Your task to perform on an android device: Add "macbook pro" to the cart on costco, then select checkout. Image 0: 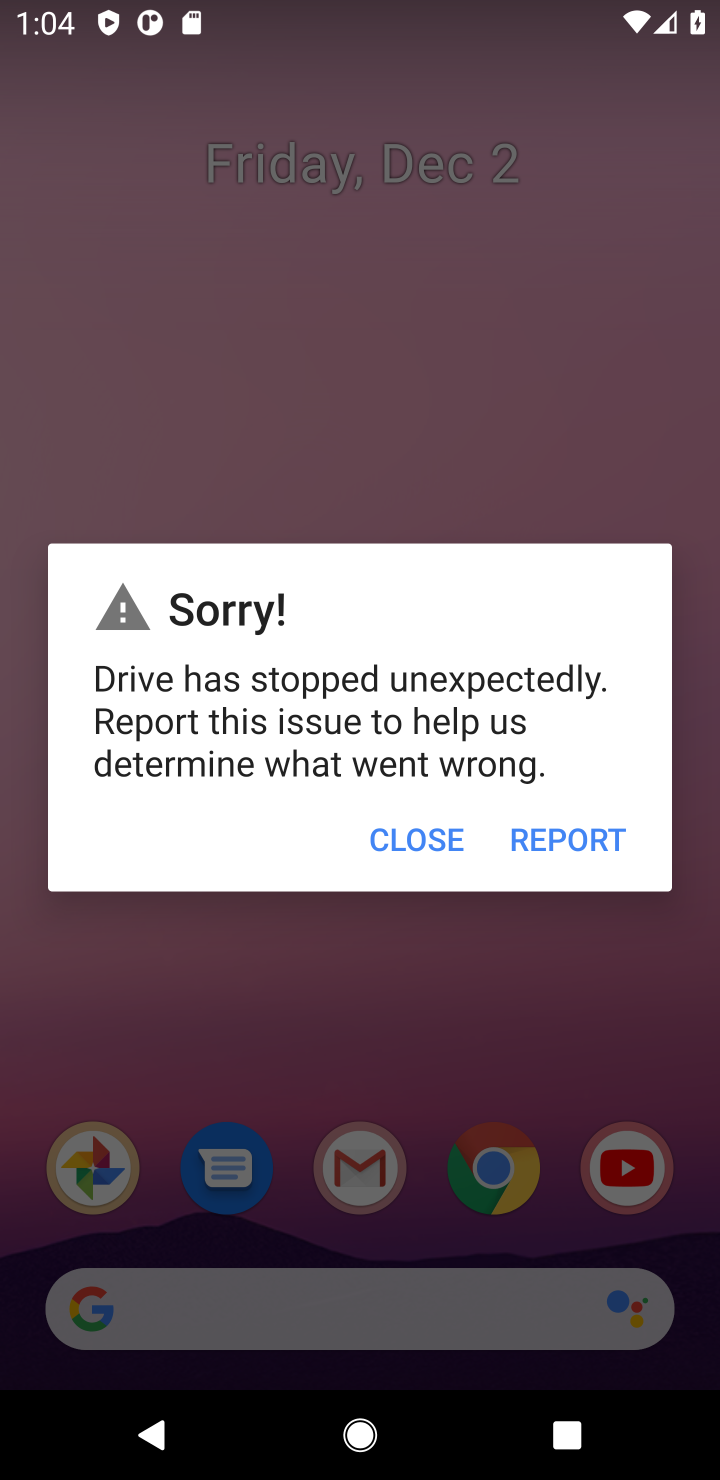
Step 0: click (433, 839)
Your task to perform on an android device: Add "macbook pro" to the cart on costco, then select checkout. Image 1: 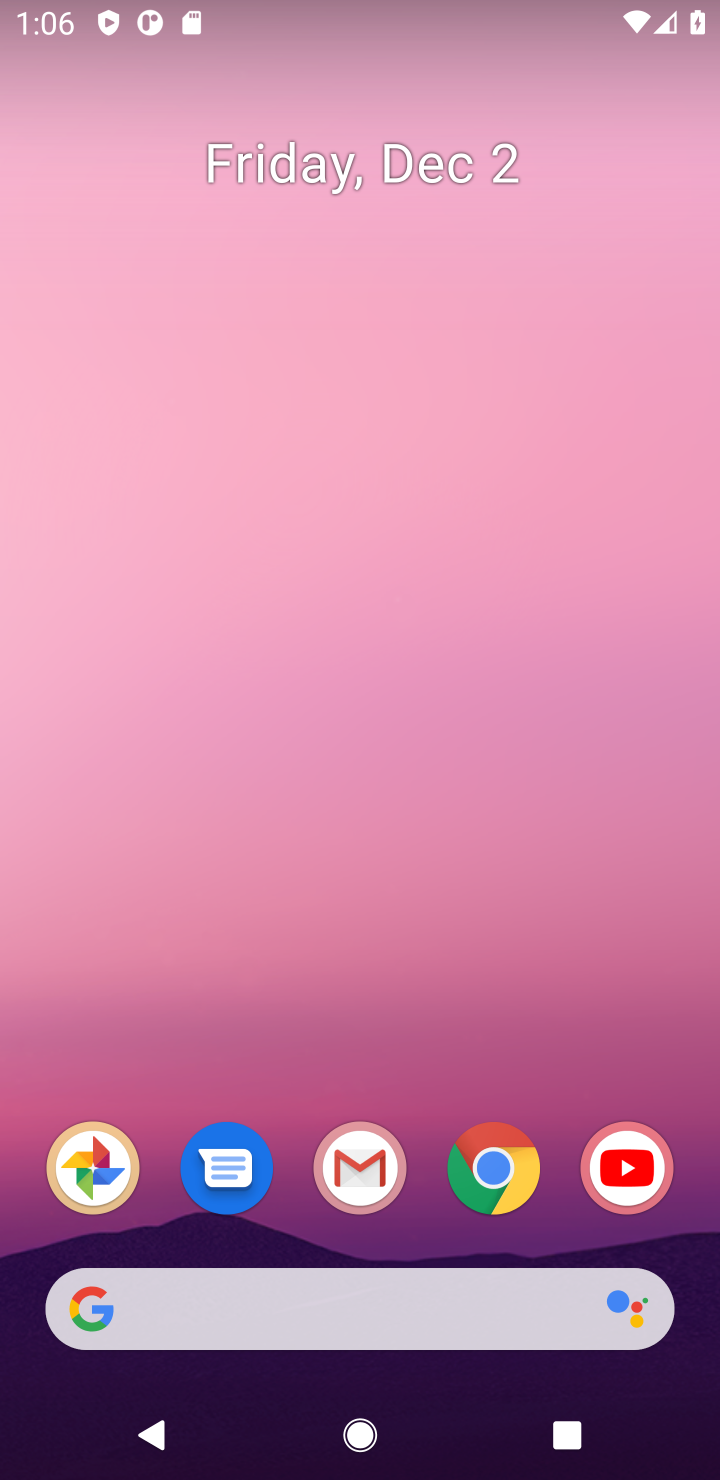
Step 1: click (499, 1188)
Your task to perform on an android device: Add "macbook pro" to the cart on costco, then select checkout. Image 2: 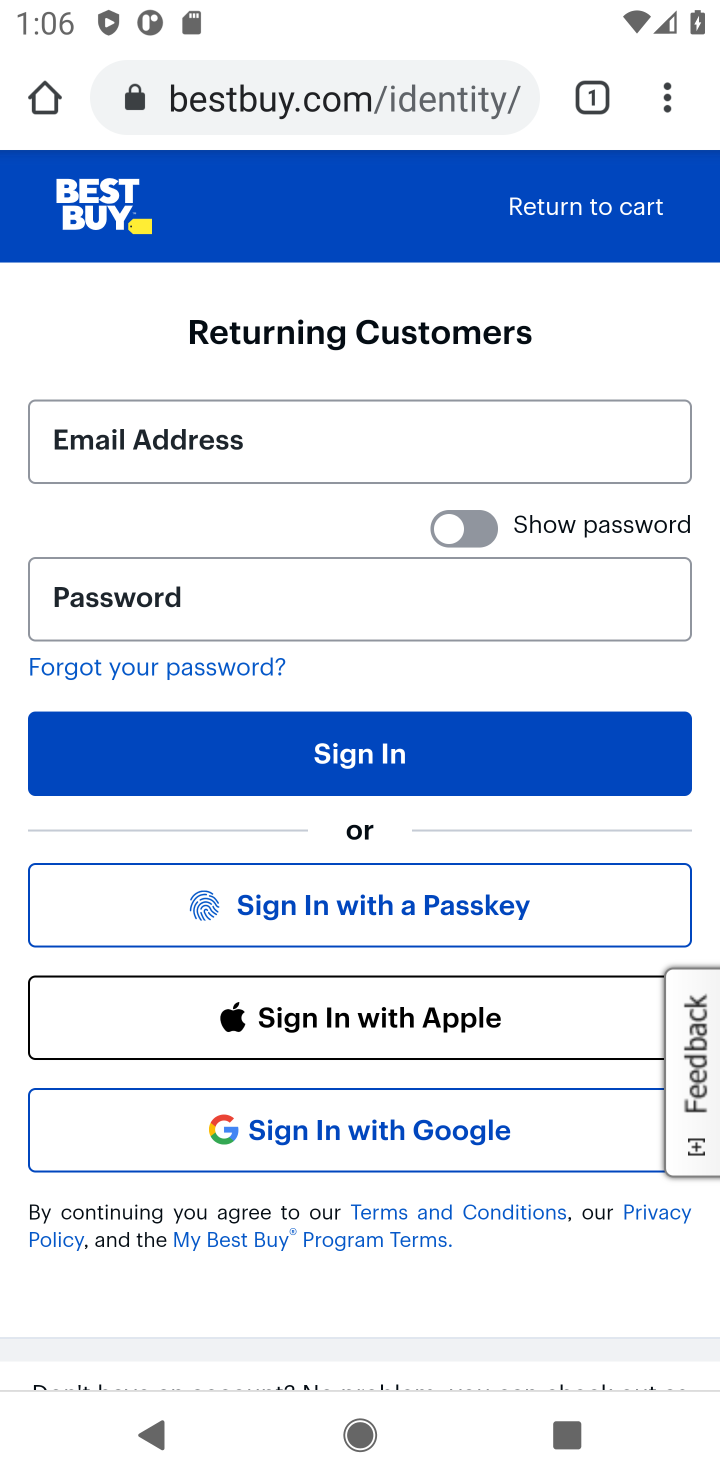
Step 2: click (321, 93)
Your task to perform on an android device: Add "macbook pro" to the cart on costco, then select checkout. Image 3: 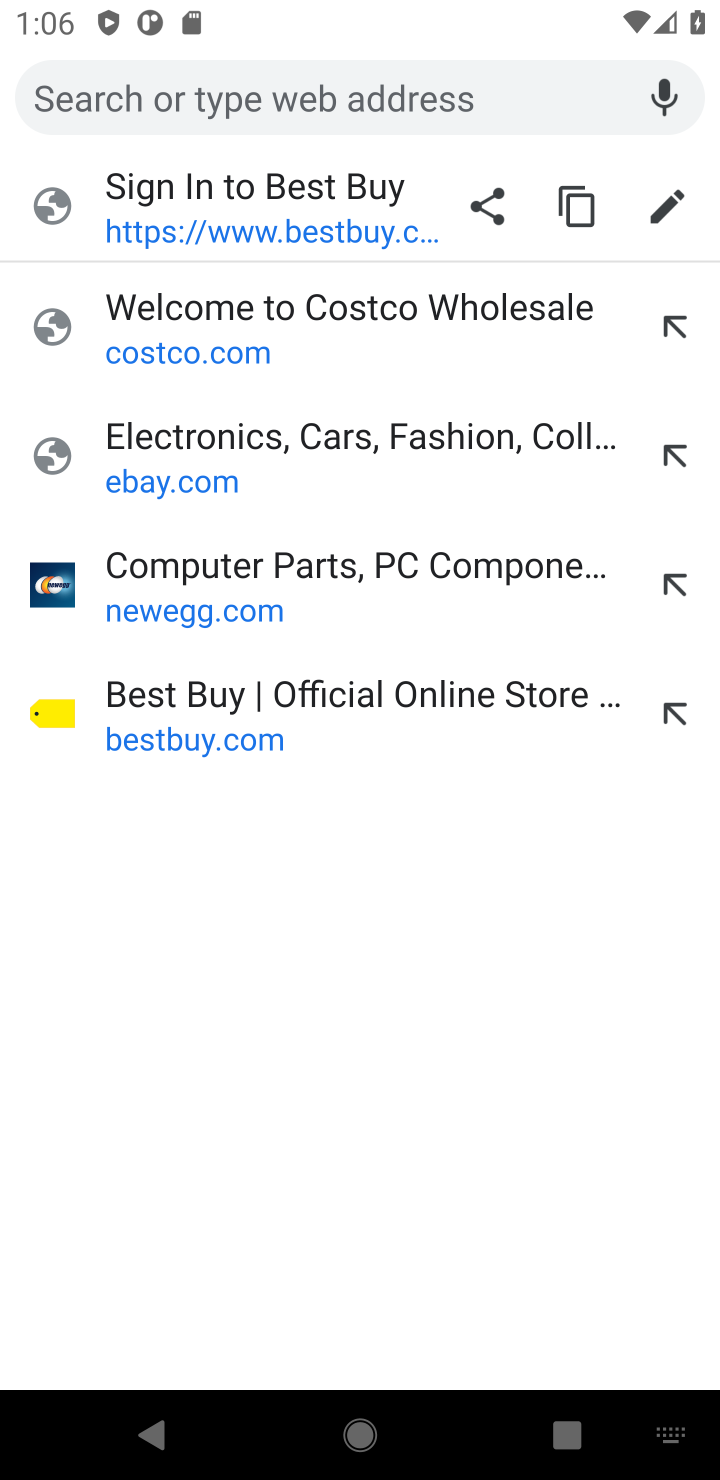
Step 3: click (196, 337)
Your task to perform on an android device: Add "macbook pro" to the cart on costco, then select checkout. Image 4: 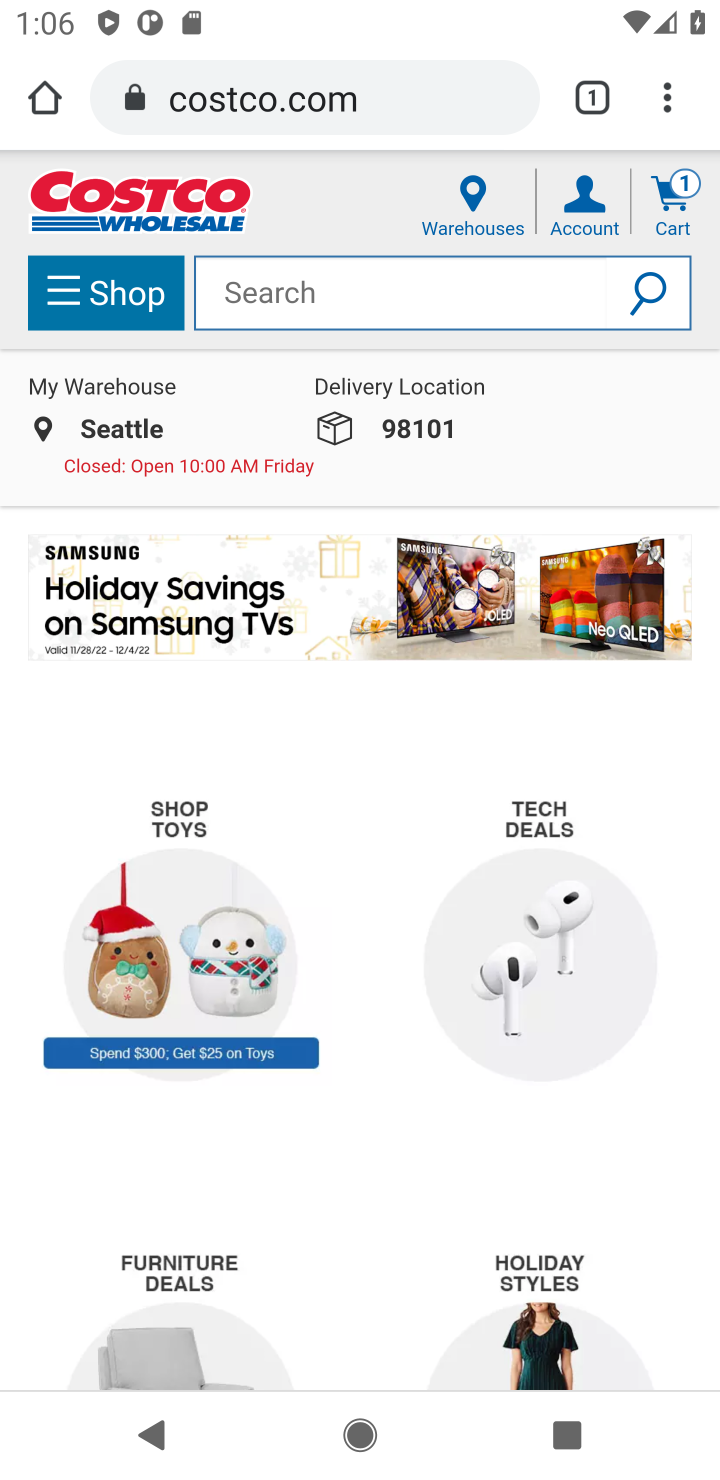
Step 4: click (301, 283)
Your task to perform on an android device: Add "macbook pro" to the cart on costco, then select checkout. Image 5: 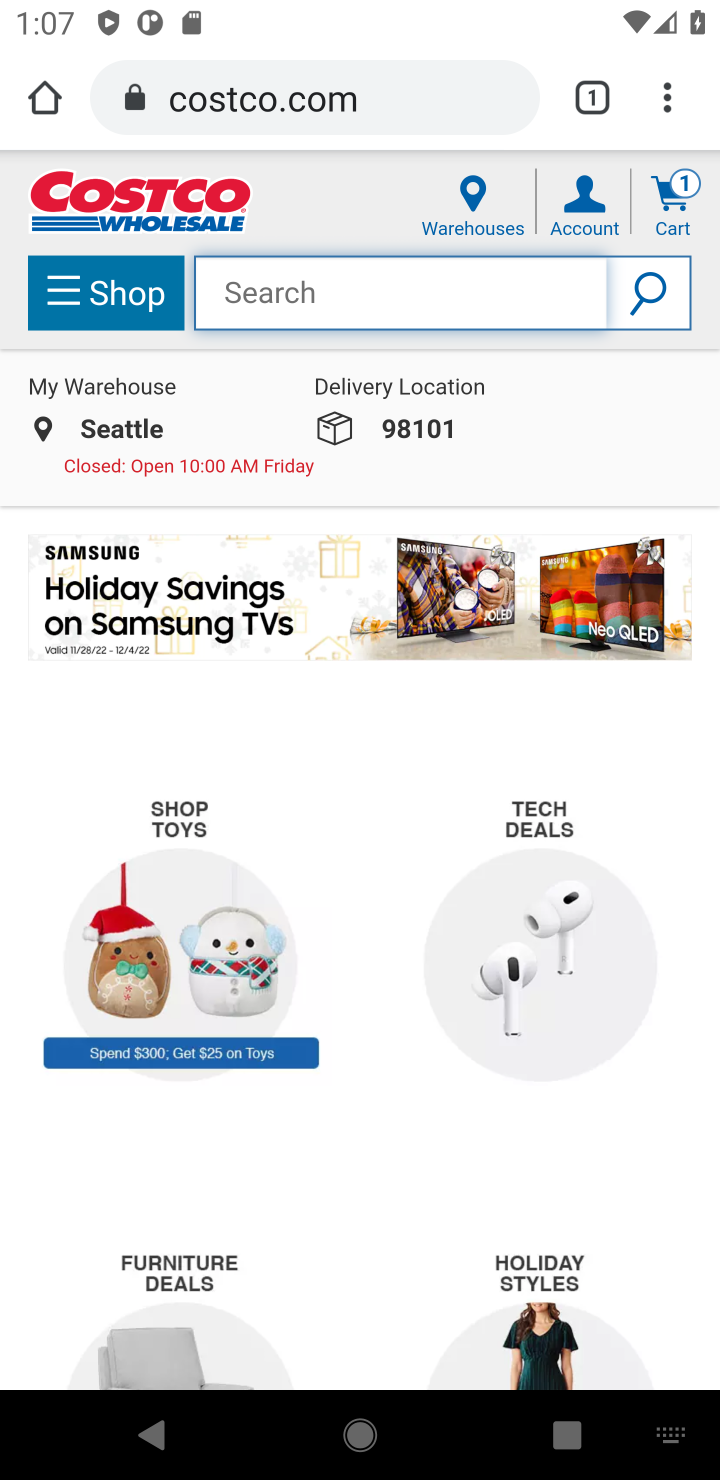
Step 5: type "macbook pro"
Your task to perform on an android device: Add "macbook pro" to the cart on costco, then select checkout. Image 6: 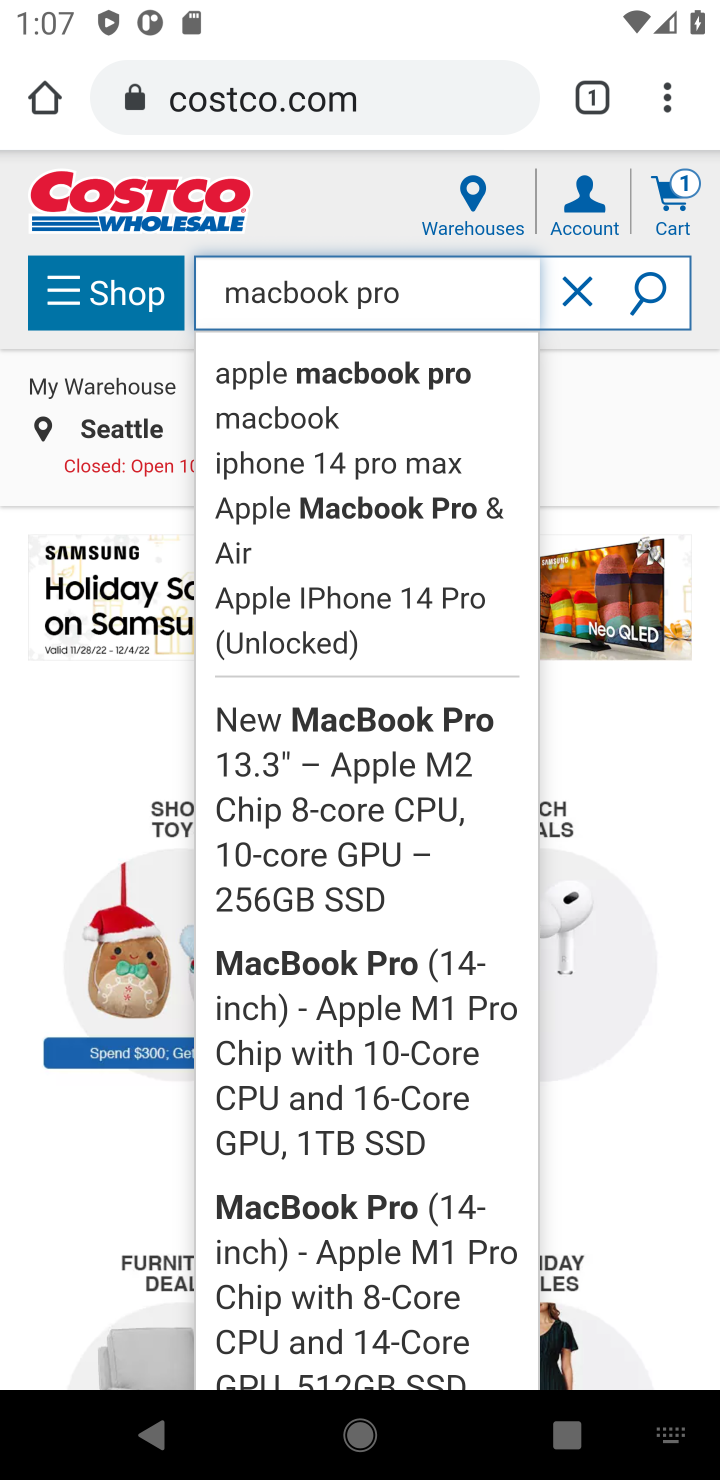
Step 6: click (263, 377)
Your task to perform on an android device: Add "macbook pro" to the cart on costco, then select checkout. Image 7: 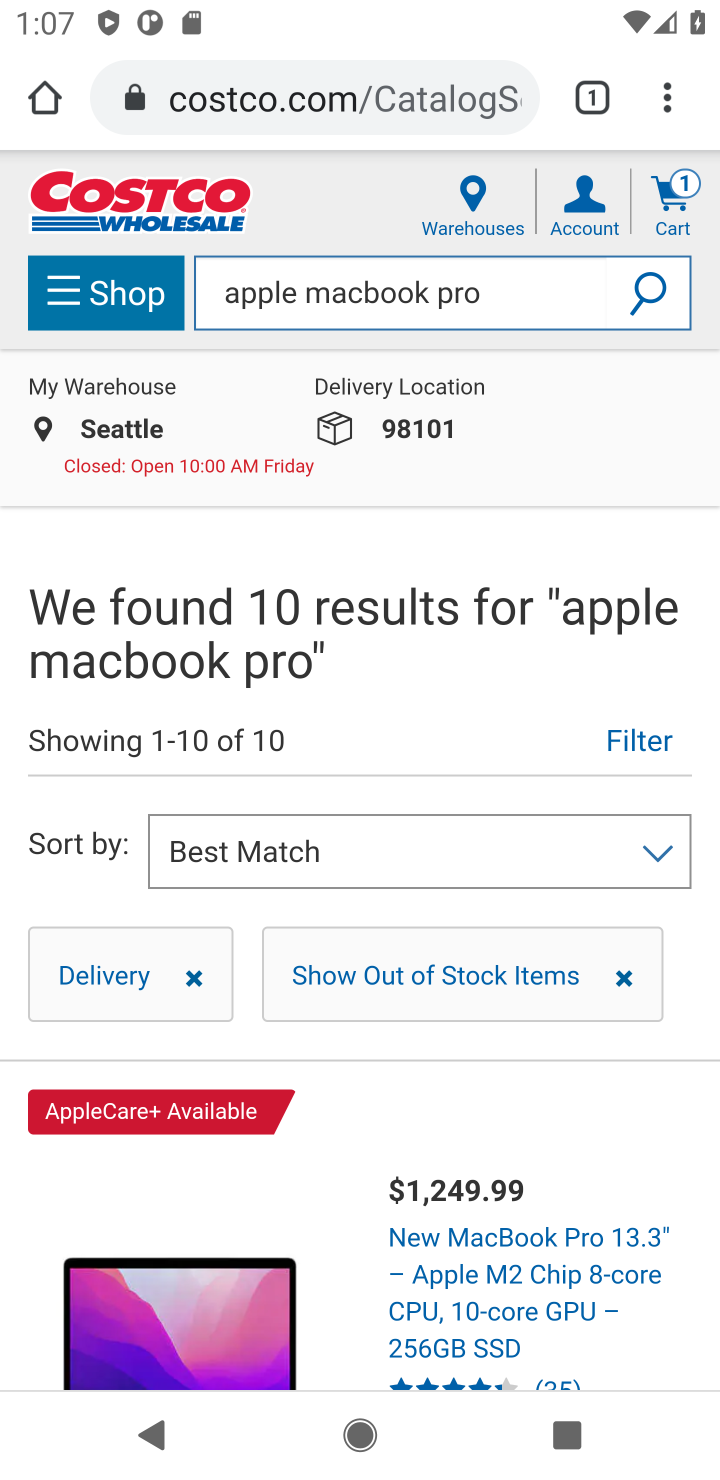
Step 7: click (269, 1318)
Your task to perform on an android device: Add "macbook pro" to the cart on costco, then select checkout. Image 8: 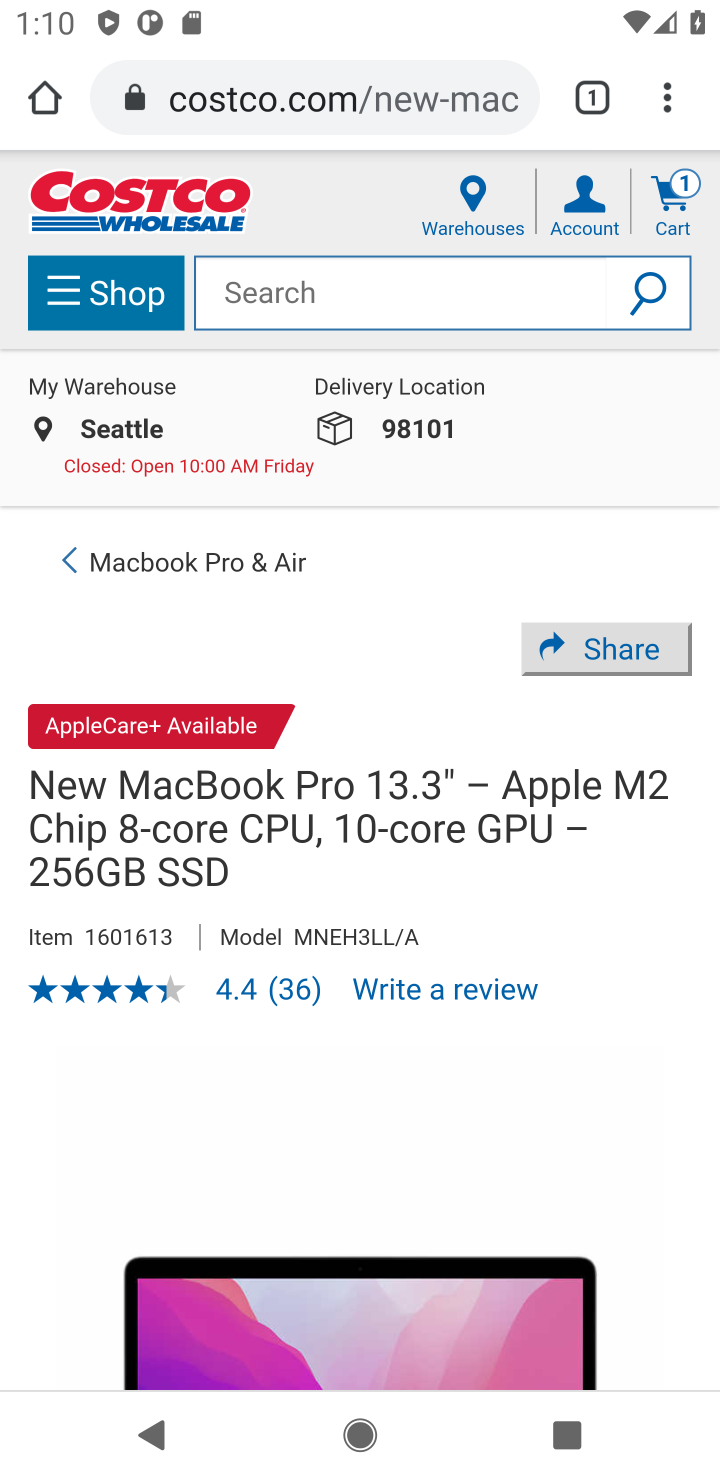
Step 8: drag from (378, 1293) to (323, 288)
Your task to perform on an android device: Add "macbook pro" to the cart on costco, then select checkout. Image 9: 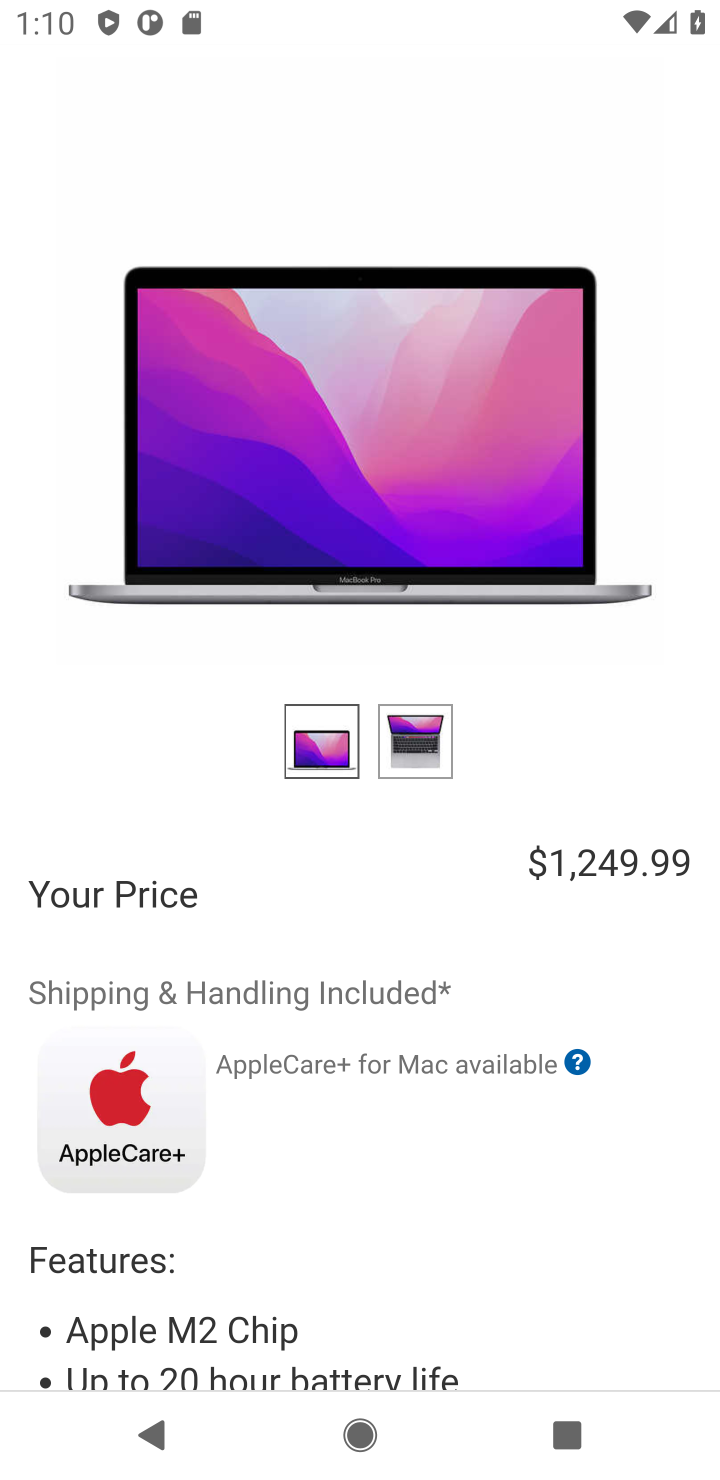
Step 9: drag from (508, 1282) to (398, 184)
Your task to perform on an android device: Add "macbook pro" to the cart on costco, then select checkout. Image 10: 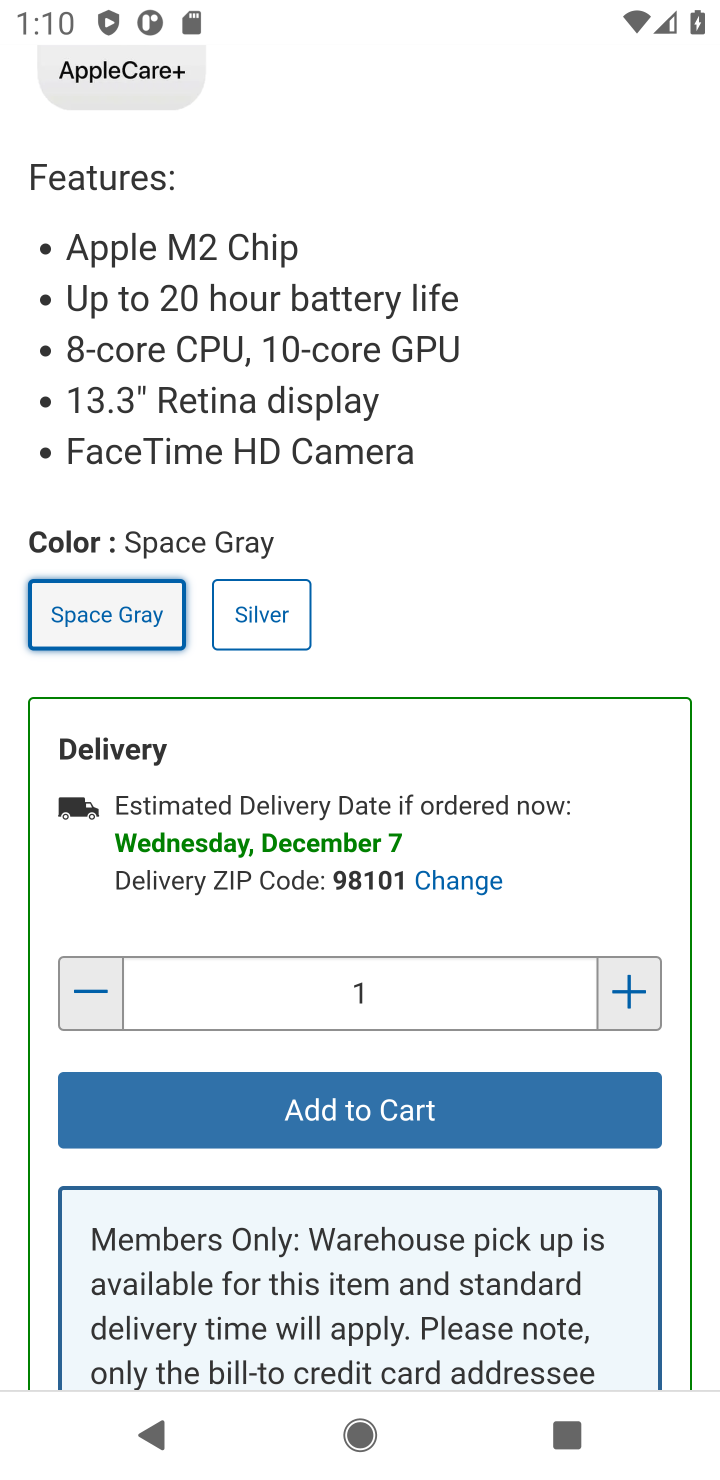
Step 10: click (350, 1120)
Your task to perform on an android device: Add "macbook pro" to the cart on costco, then select checkout. Image 11: 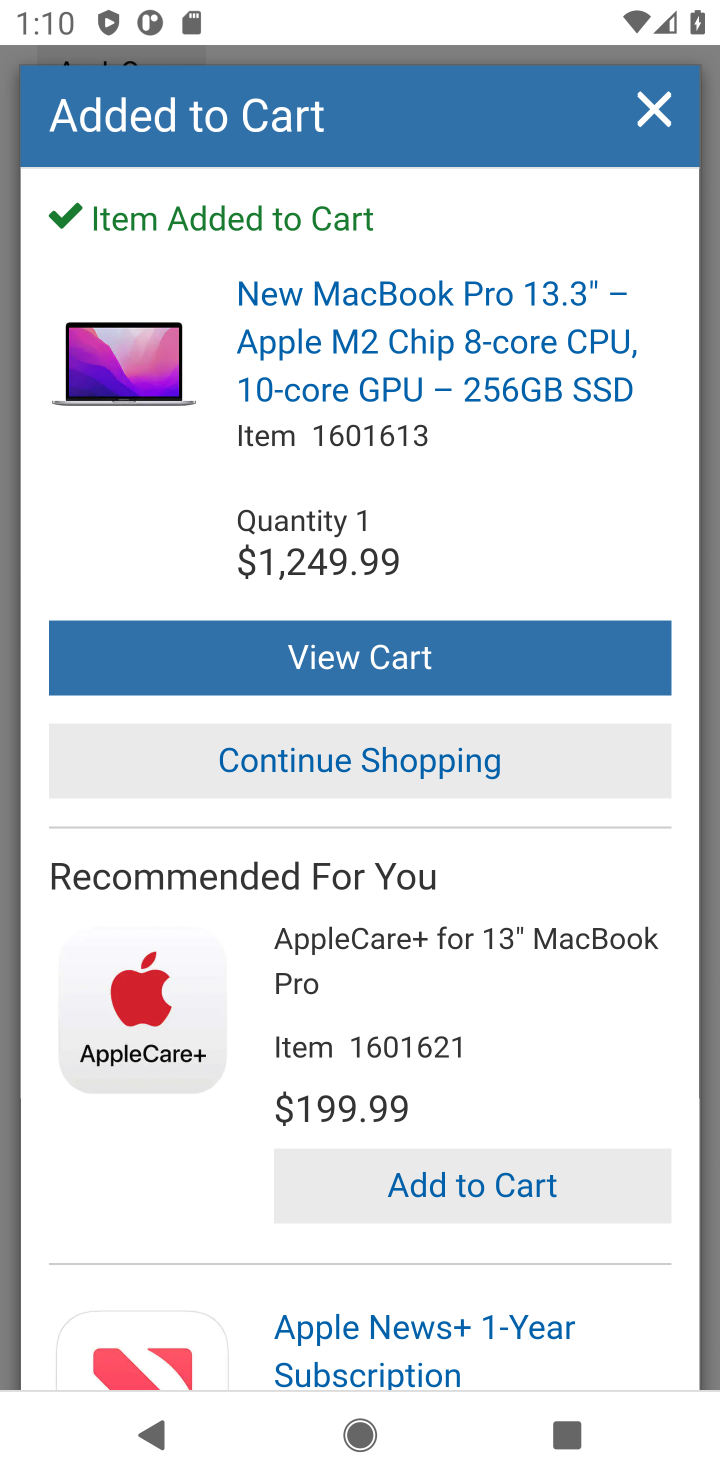
Step 11: click (373, 652)
Your task to perform on an android device: Add "macbook pro" to the cart on costco, then select checkout. Image 12: 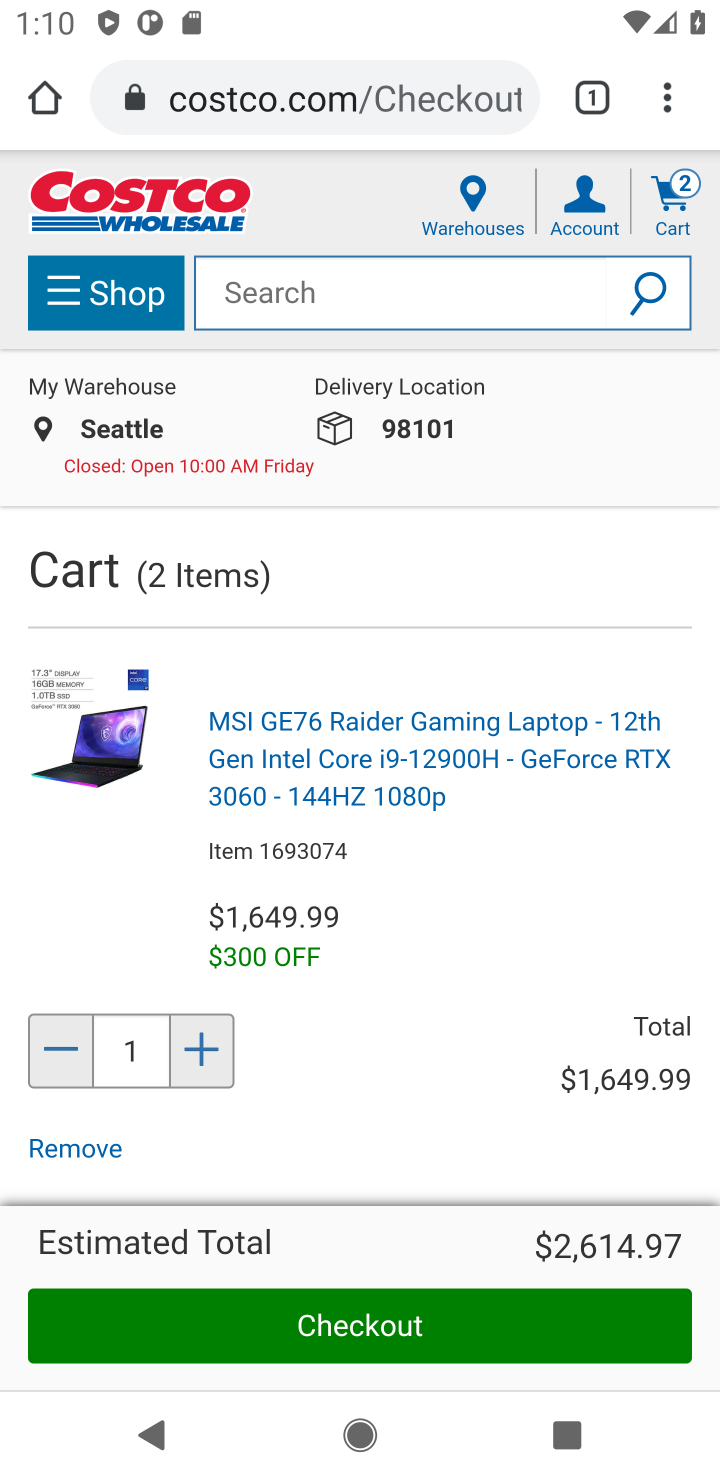
Step 12: click (395, 1319)
Your task to perform on an android device: Add "macbook pro" to the cart on costco, then select checkout. Image 13: 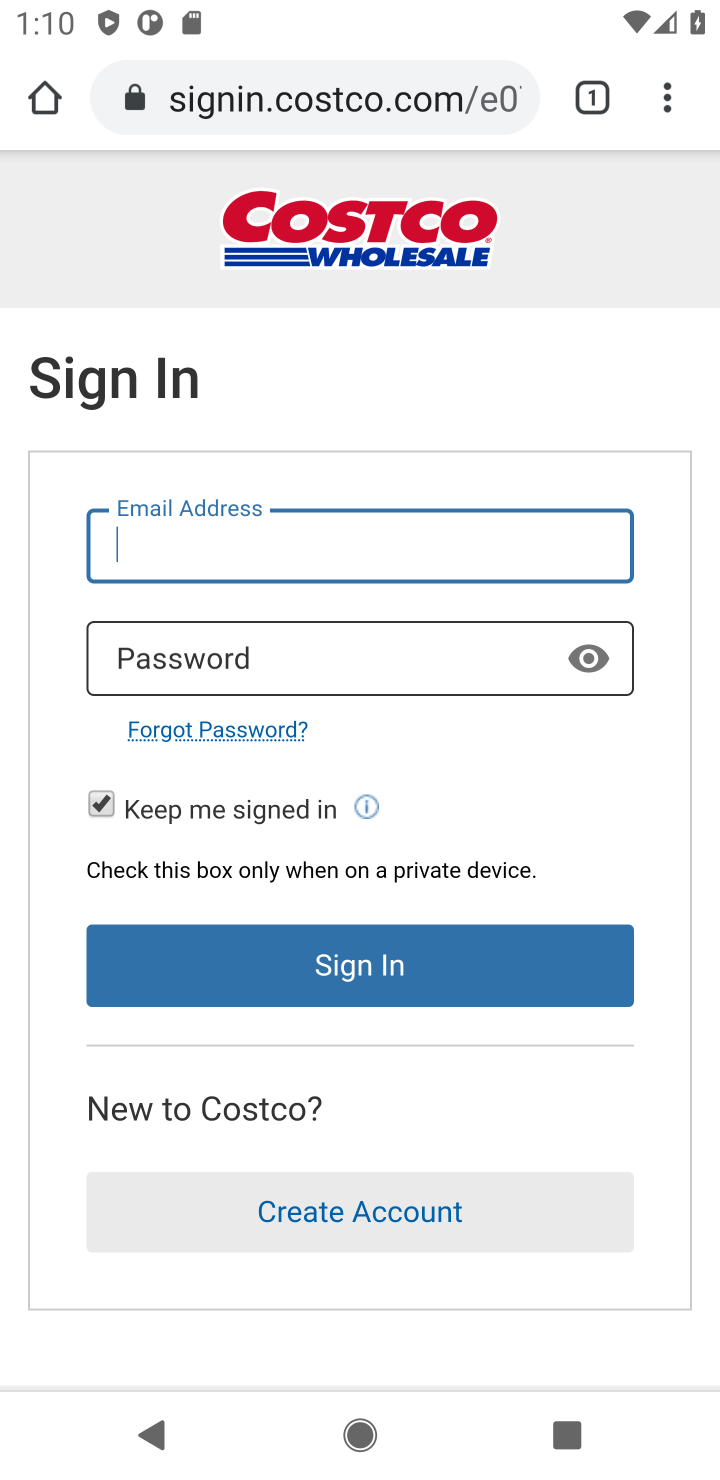
Step 13: task complete